Your task to perform on an android device: Find coffee shops on Maps Image 0: 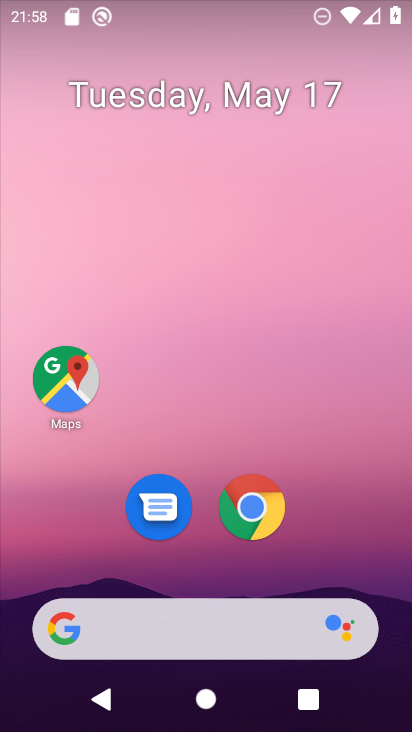
Step 0: click (55, 373)
Your task to perform on an android device: Find coffee shops on Maps Image 1: 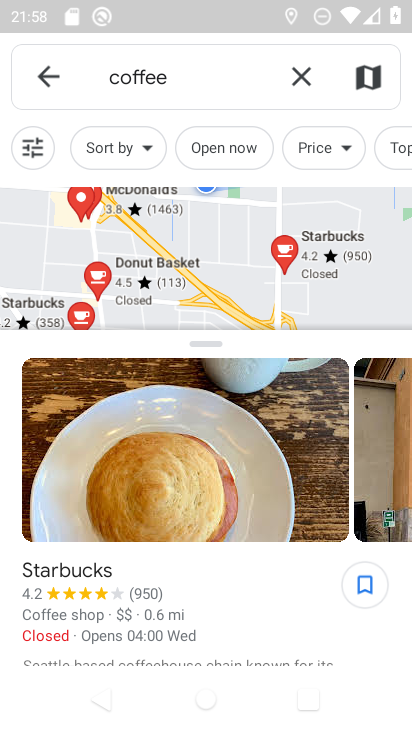
Step 1: click (291, 83)
Your task to perform on an android device: Find coffee shops on Maps Image 2: 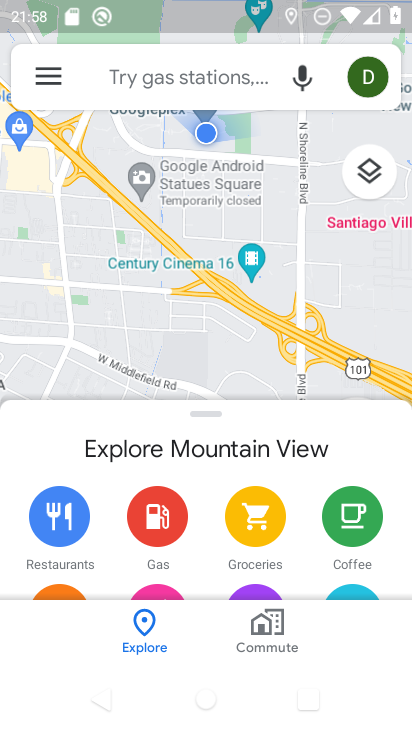
Step 2: click (132, 74)
Your task to perform on an android device: Find coffee shops on Maps Image 3: 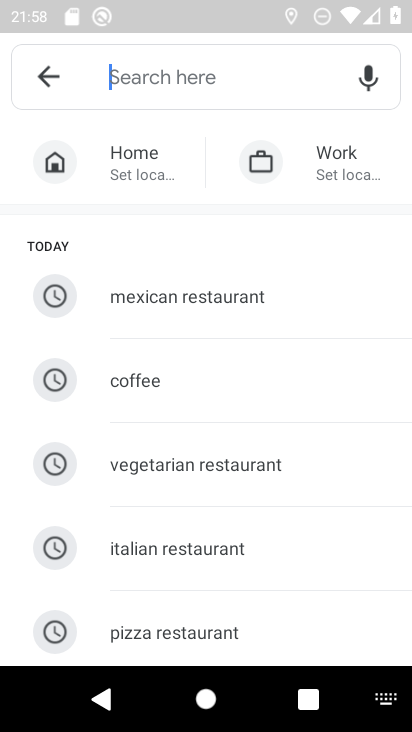
Step 3: type "coffee shop"
Your task to perform on an android device: Find coffee shops on Maps Image 4: 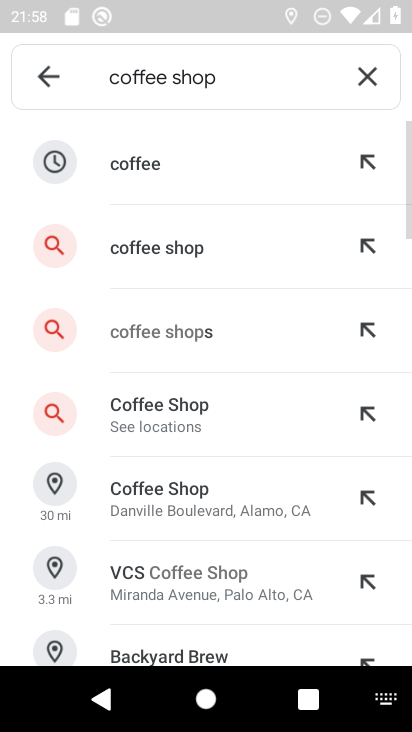
Step 4: click (160, 251)
Your task to perform on an android device: Find coffee shops on Maps Image 5: 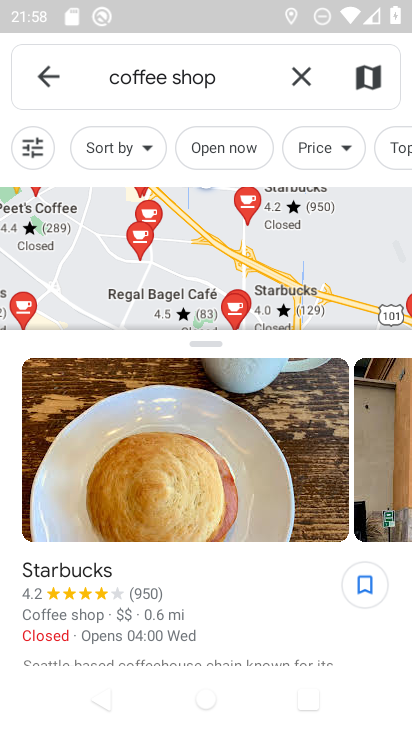
Step 5: task complete